Your task to perform on an android device: turn on sleep mode Image 0: 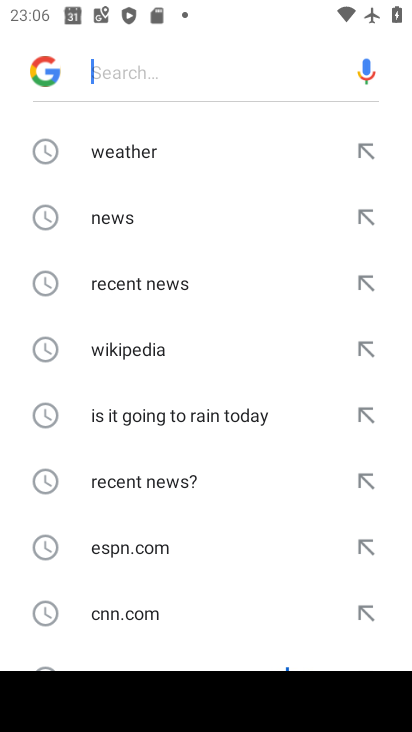
Step 0: press home button
Your task to perform on an android device: turn on sleep mode Image 1: 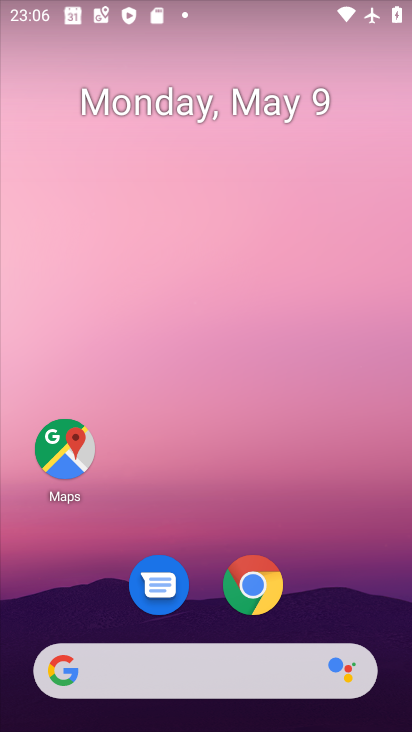
Step 1: drag from (272, 481) to (250, 44)
Your task to perform on an android device: turn on sleep mode Image 2: 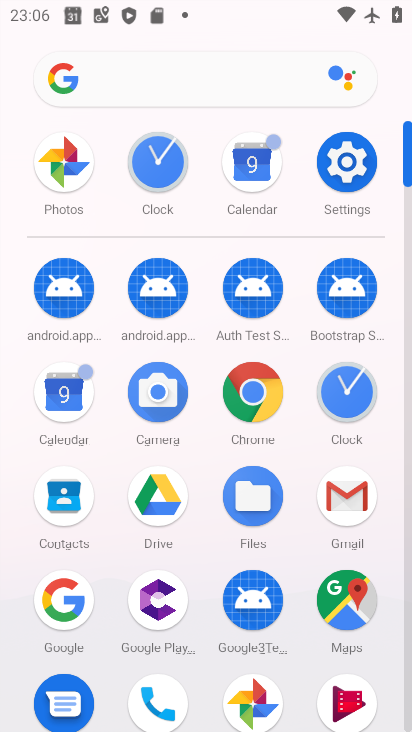
Step 2: click (339, 161)
Your task to perform on an android device: turn on sleep mode Image 3: 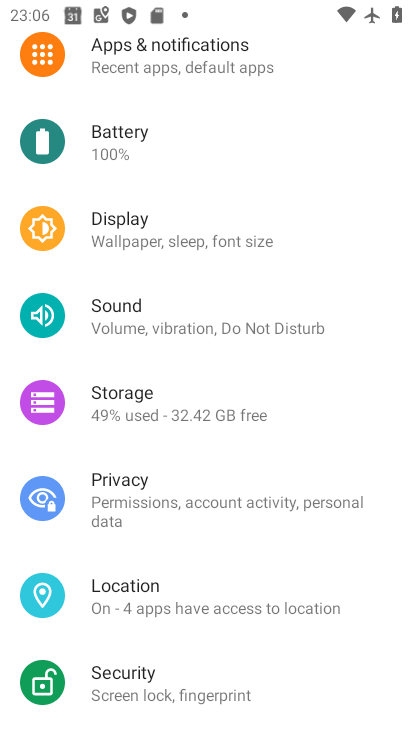
Step 3: click (248, 237)
Your task to perform on an android device: turn on sleep mode Image 4: 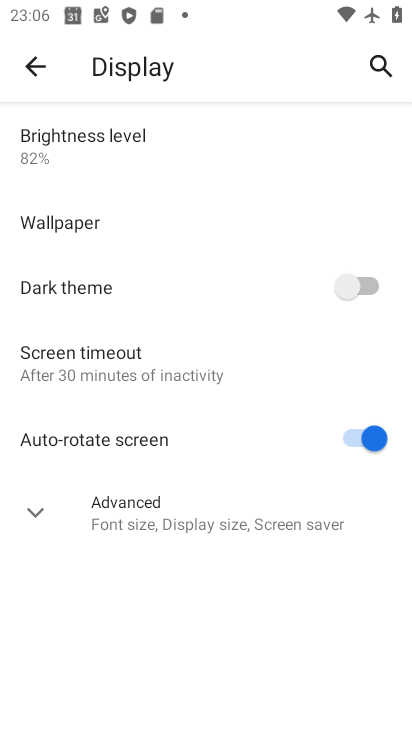
Step 4: click (35, 508)
Your task to perform on an android device: turn on sleep mode Image 5: 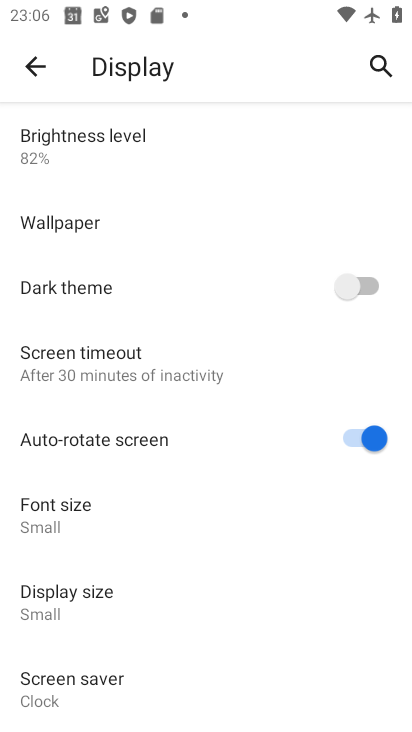
Step 5: task complete